Your task to perform on an android device: Open Chrome and go to settings Image 0: 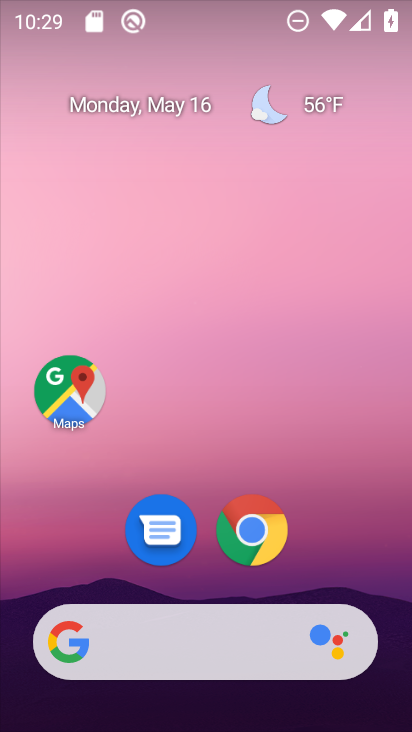
Step 0: click (252, 538)
Your task to perform on an android device: Open Chrome and go to settings Image 1: 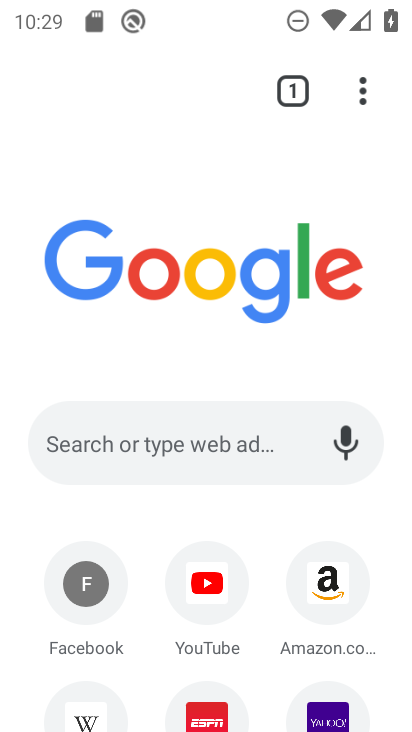
Step 1: task complete